Your task to perform on an android device: Open Reddit.com Image 0: 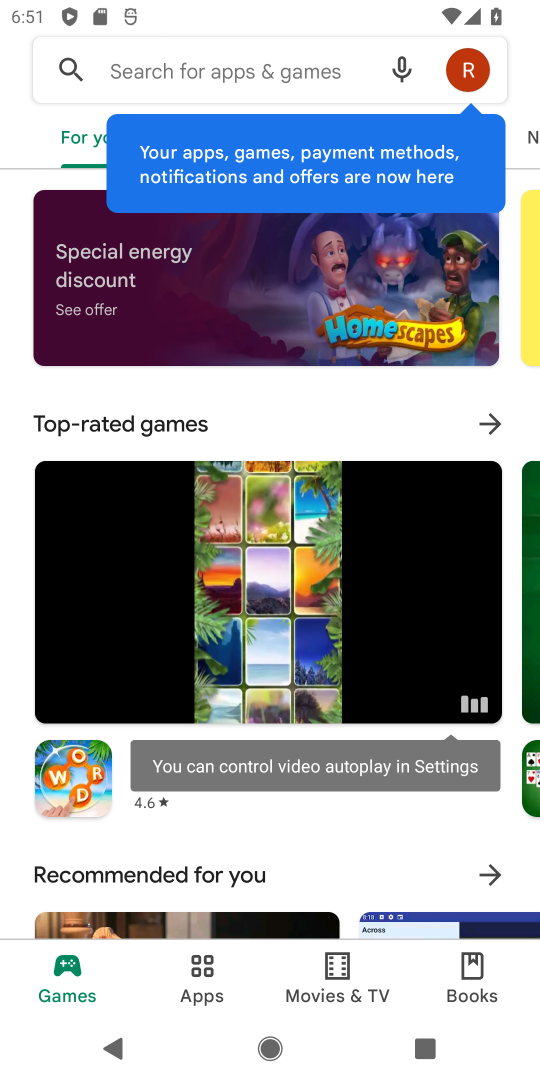
Step 0: press home button
Your task to perform on an android device: Open Reddit.com Image 1: 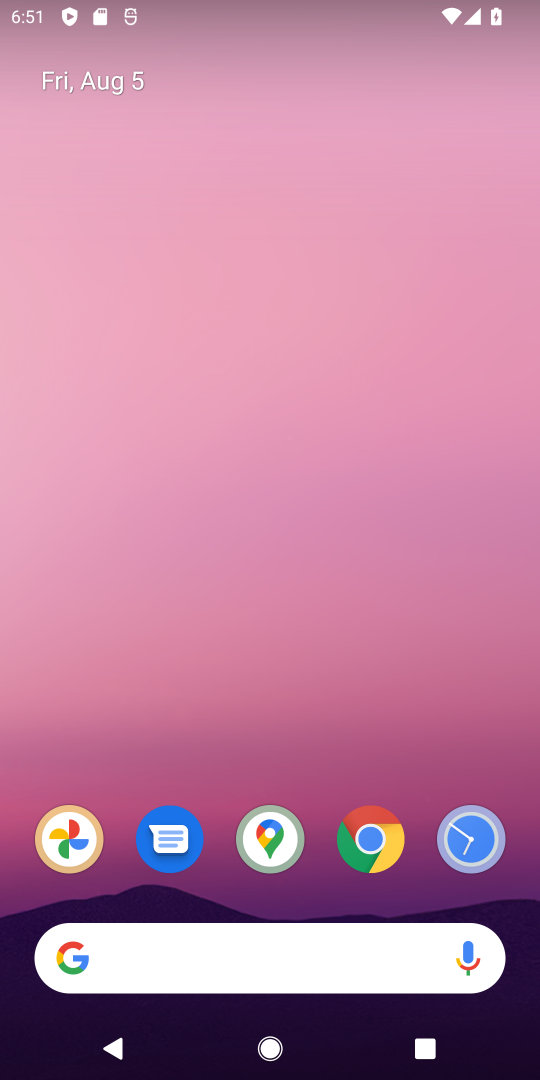
Step 1: click (374, 845)
Your task to perform on an android device: Open Reddit.com Image 2: 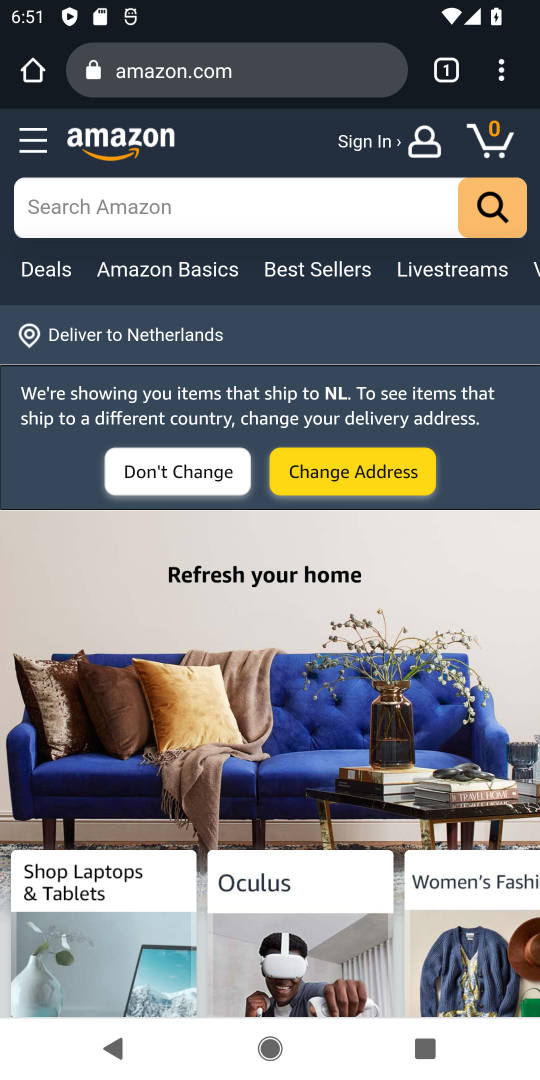
Step 2: click (503, 87)
Your task to perform on an android device: Open Reddit.com Image 3: 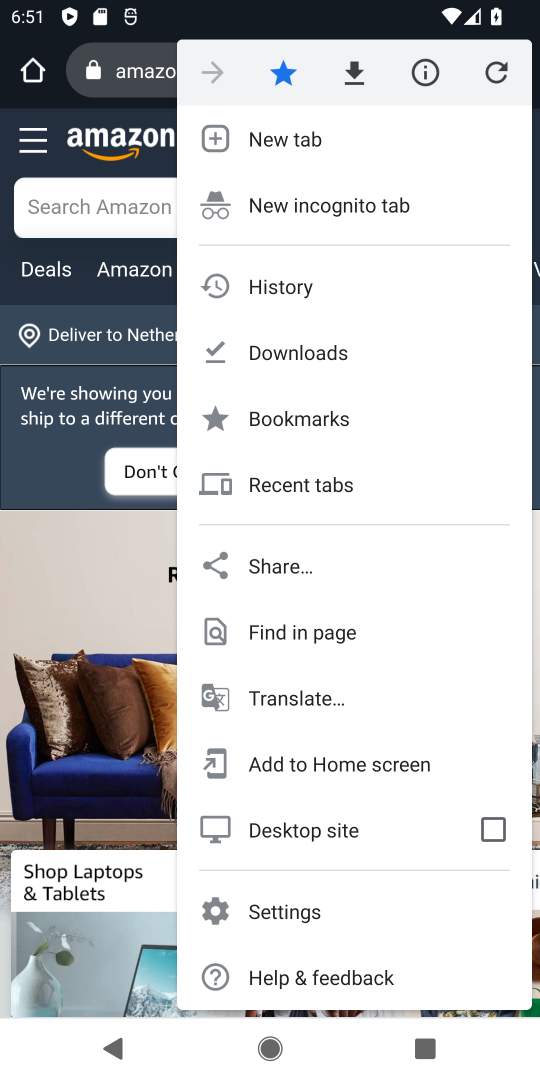
Step 3: click (288, 144)
Your task to perform on an android device: Open Reddit.com Image 4: 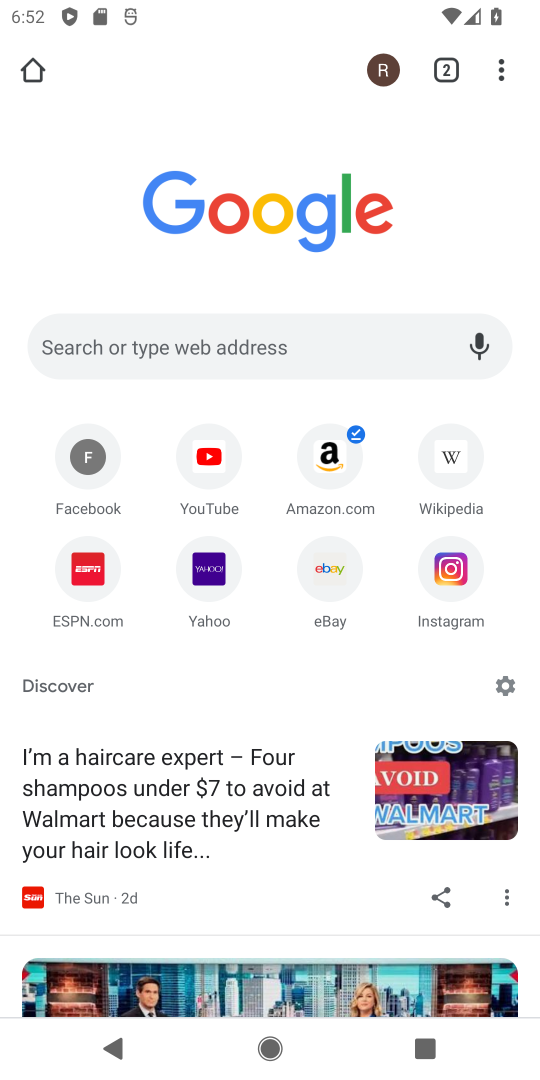
Step 4: click (335, 354)
Your task to perform on an android device: Open Reddit.com Image 5: 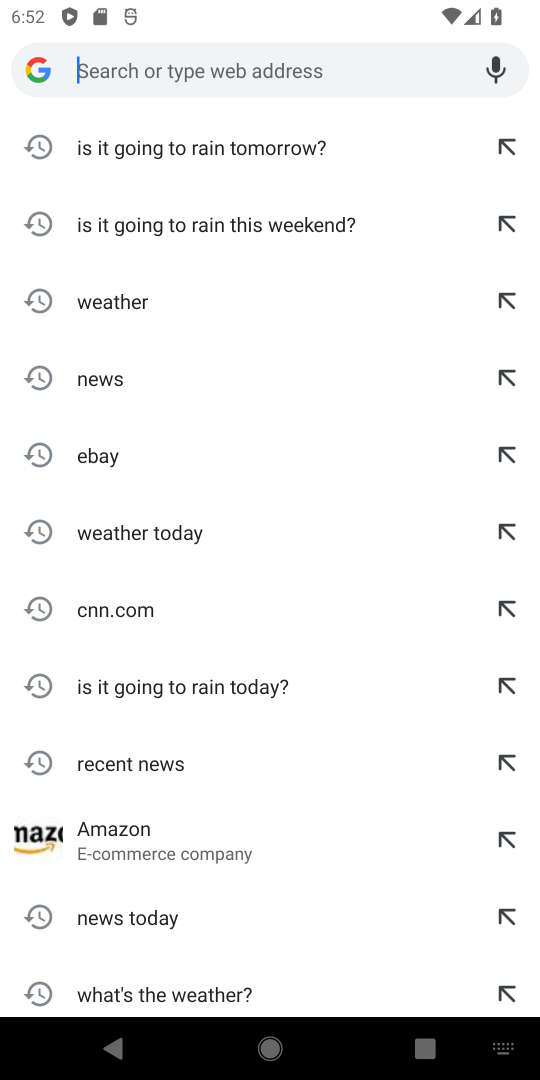
Step 5: type "Reddit.com"
Your task to perform on an android device: Open Reddit.com Image 6: 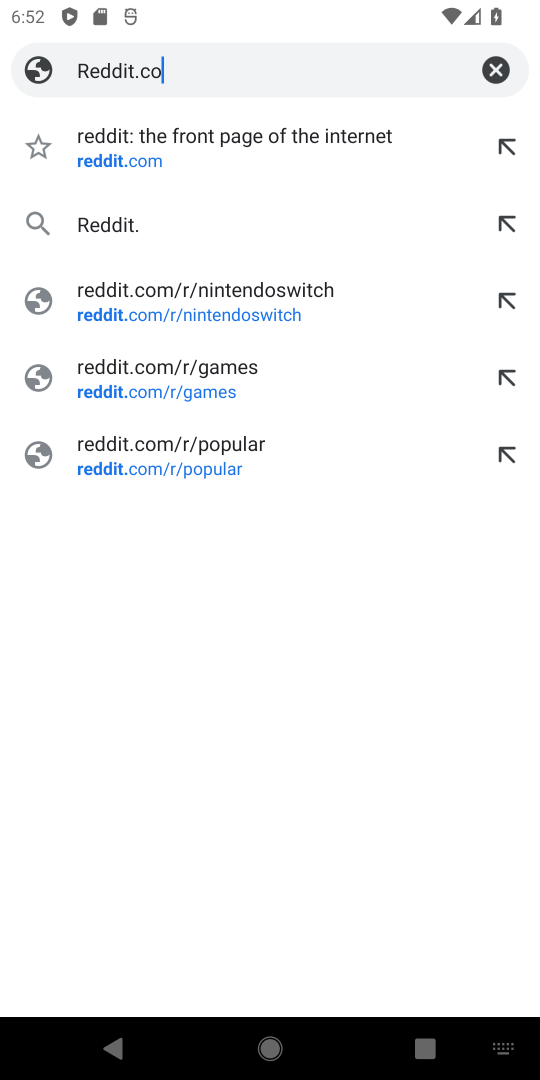
Step 6: type ""
Your task to perform on an android device: Open Reddit.com Image 7: 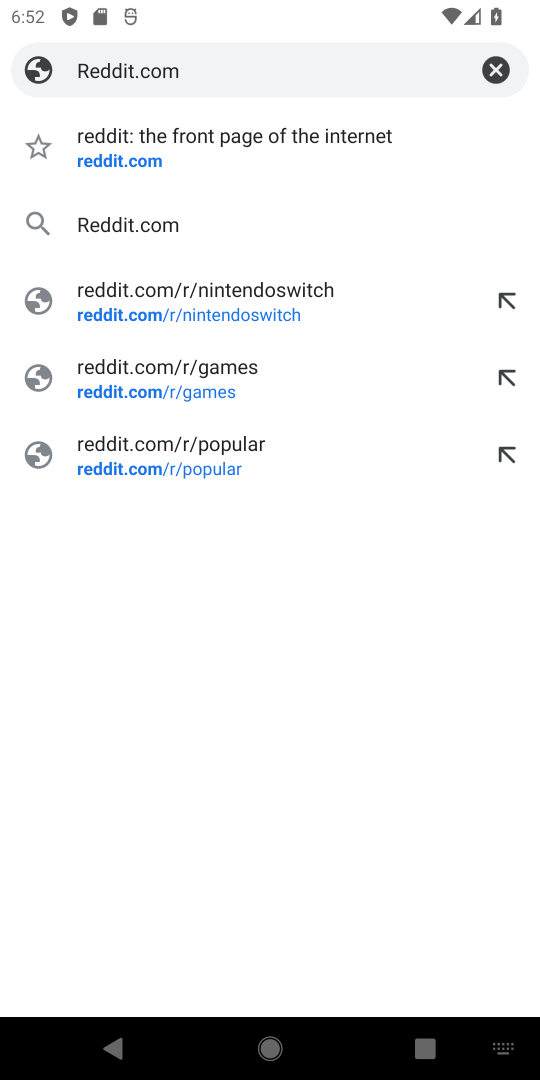
Step 7: click (128, 121)
Your task to perform on an android device: Open Reddit.com Image 8: 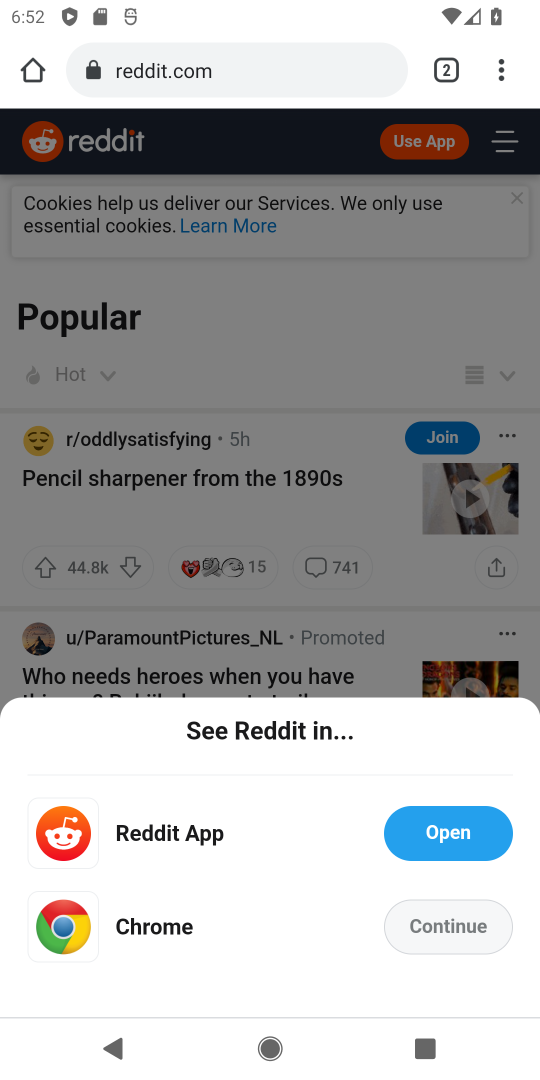
Step 8: task complete